Your task to perform on an android device: visit the assistant section in the google photos Image 0: 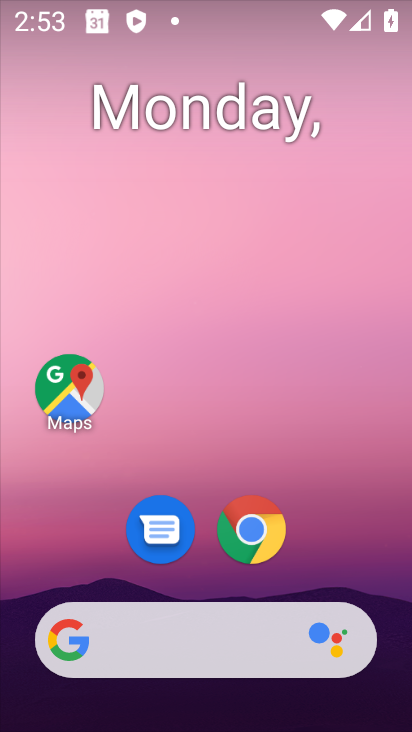
Step 0: drag from (378, 530) to (229, 180)
Your task to perform on an android device: visit the assistant section in the google photos Image 1: 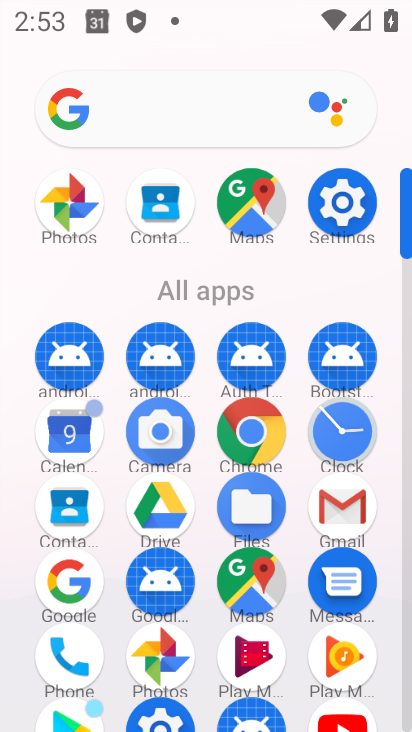
Step 1: click (91, 215)
Your task to perform on an android device: visit the assistant section in the google photos Image 2: 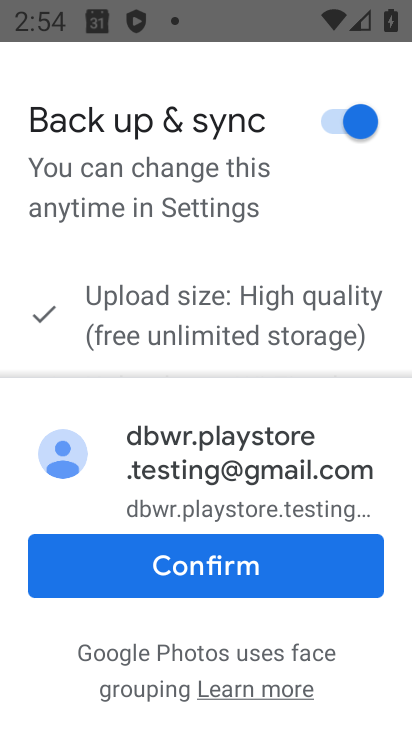
Step 2: click (163, 542)
Your task to perform on an android device: visit the assistant section in the google photos Image 3: 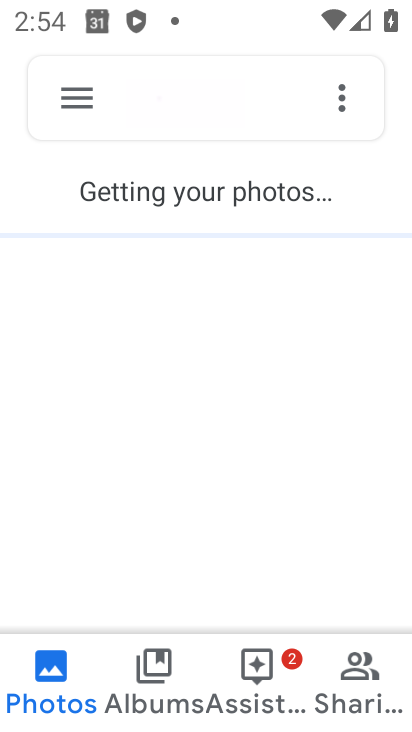
Step 3: click (263, 696)
Your task to perform on an android device: visit the assistant section in the google photos Image 4: 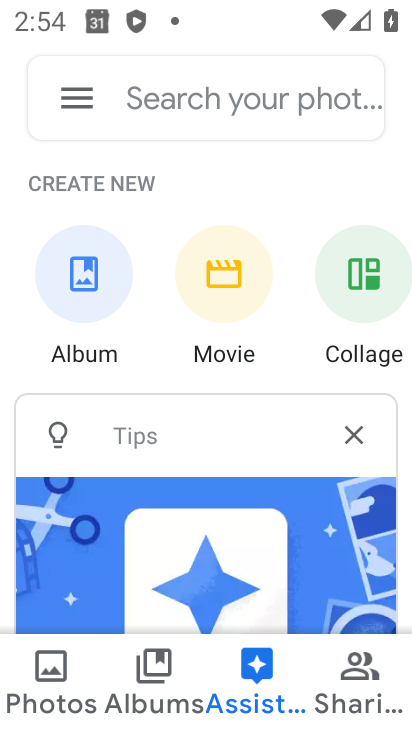
Step 4: task complete